Your task to perform on an android device: turn off data saver in the chrome app Image 0: 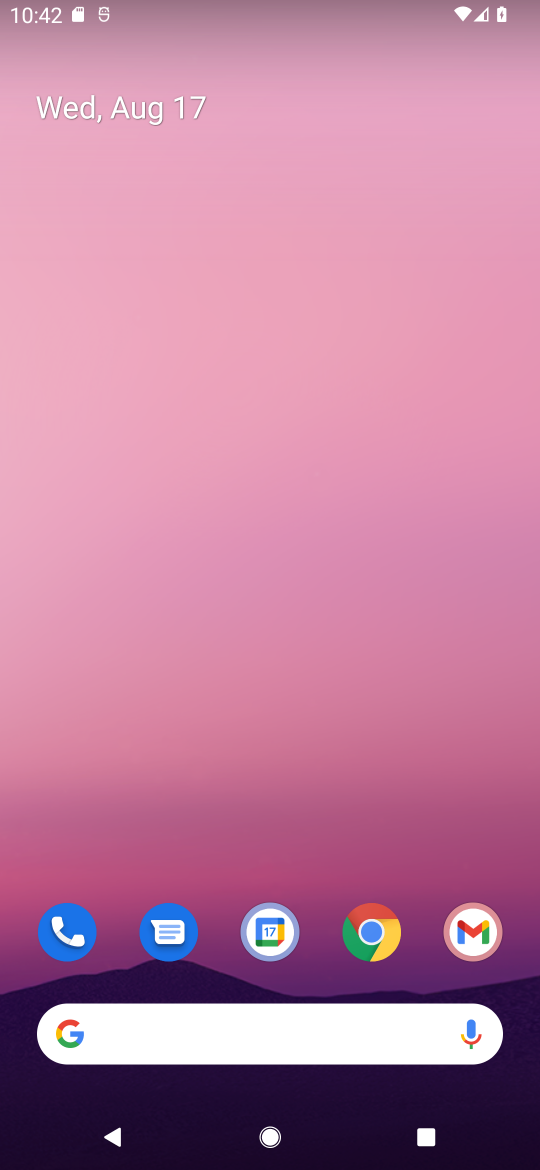
Step 0: click (378, 930)
Your task to perform on an android device: turn off data saver in the chrome app Image 1: 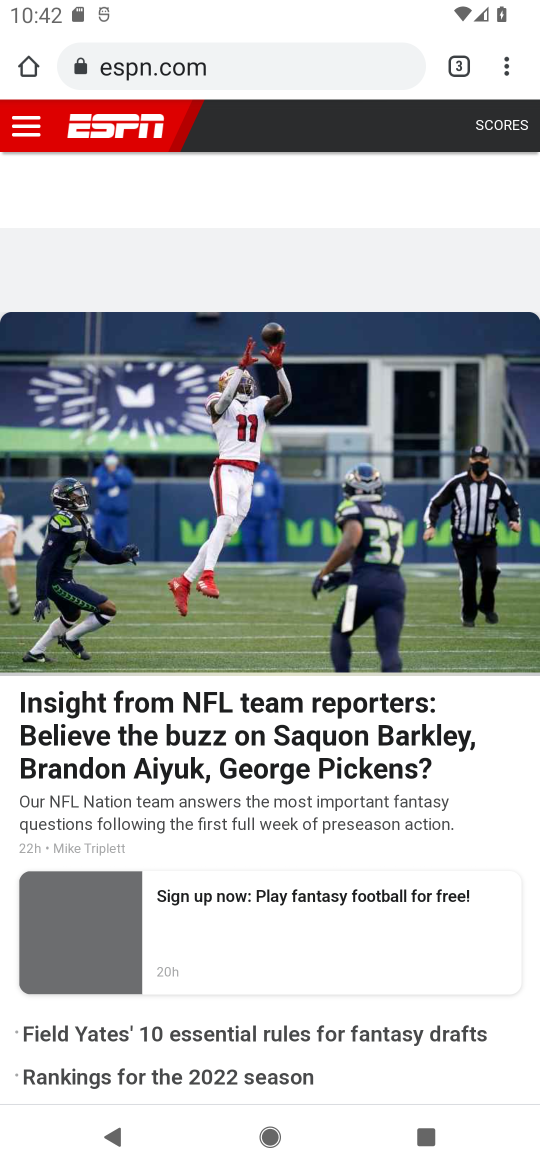
Step 1: click (506, 71)
Your task to perform on an android device: turn off data saver in the chrome app Image 2: 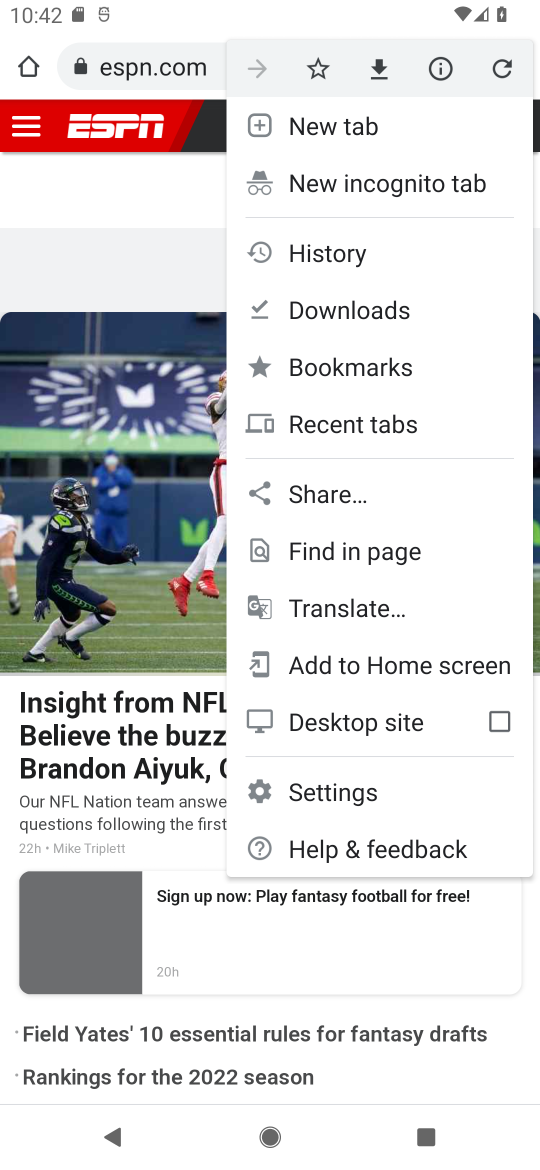
Step 2: click (337, 791)
Your task to perform on an android device: turn off data saver in the chrome app Image 3: 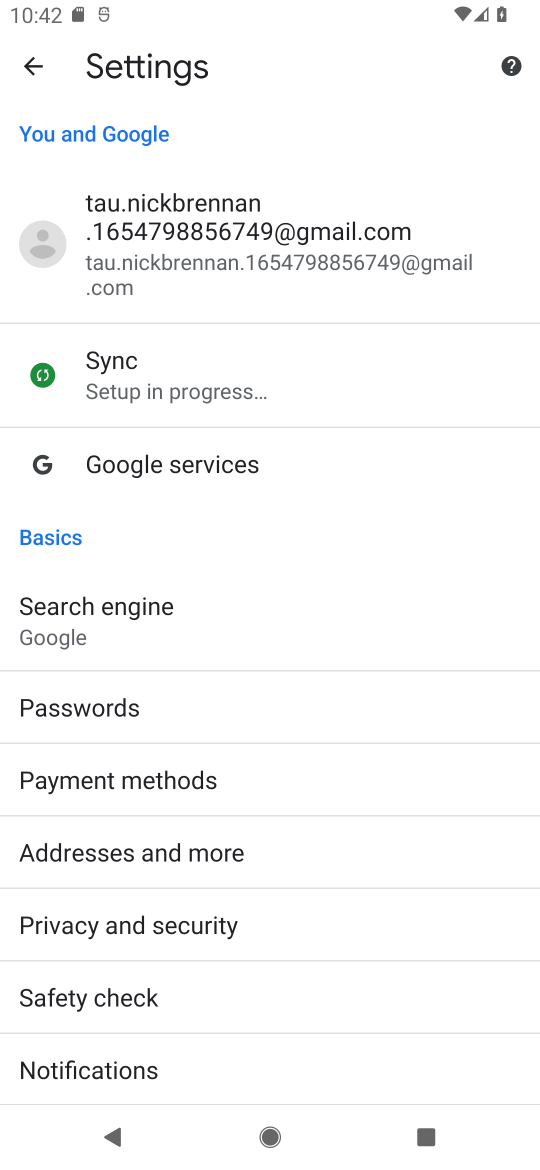
Step 3: drag from (88, 1029) to (183, 411)
Your task to perform on an android device: turn off data saver in the chrome app Image 4: 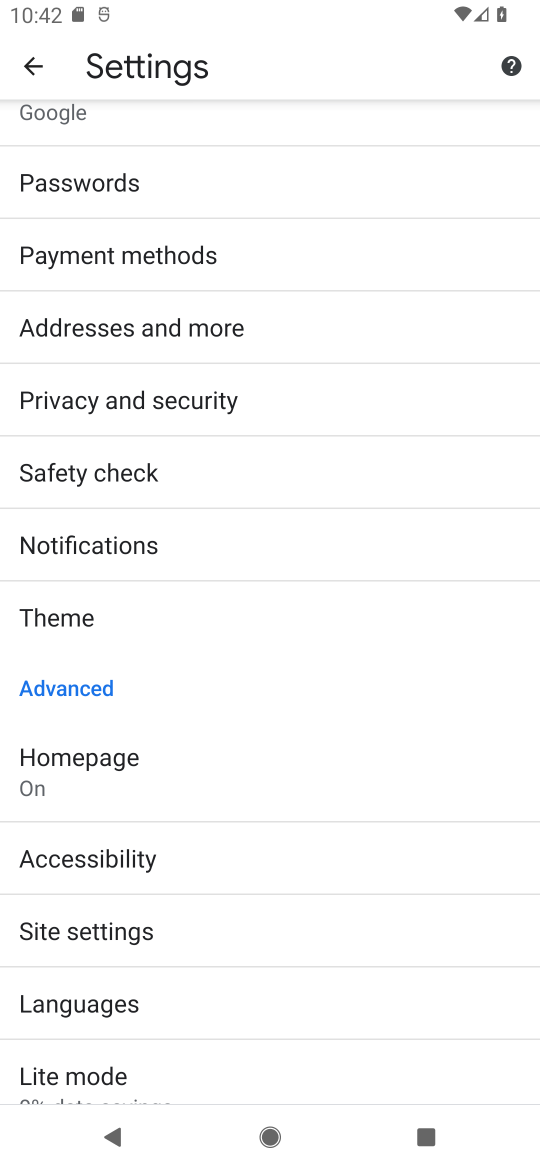
Step 4: click (97, 1068)
Your task to perform on an android device: turn off data saver in the chrome app Image 5: 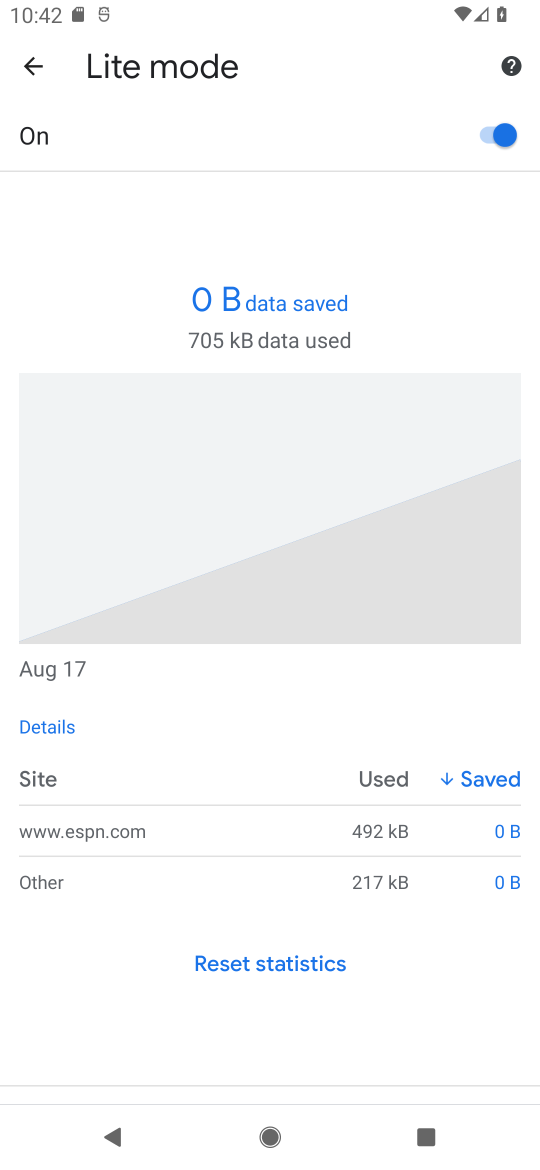
Step 5: drag from (195, 1037) to (204, 485)
Your task to perform on an android device: turn off data saver in the chrome app Image 6: 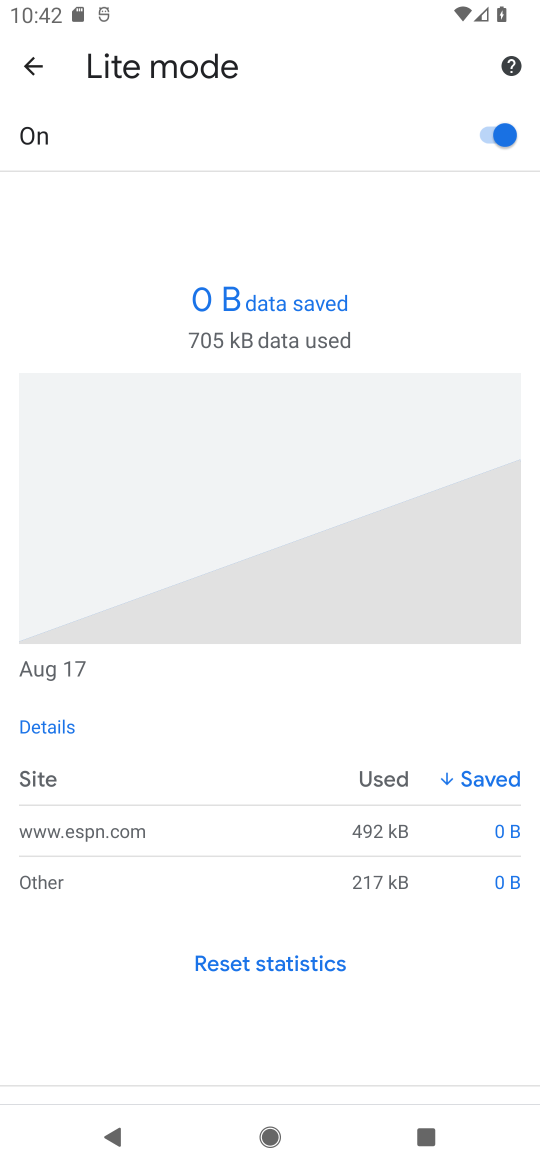
Step 6: click (501, 132)
Your task to perform on an android device: turn off data saver in the chrome app Image 7: 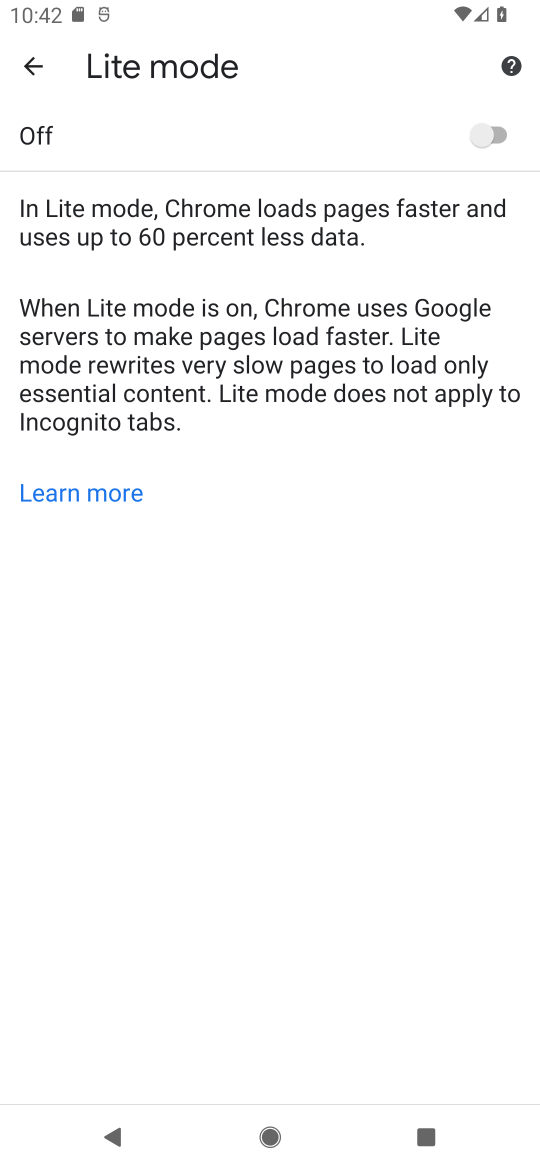
Step 7: task complete